Your task to perform on an android device: turn on showing notifications on the lock screen Image 0: 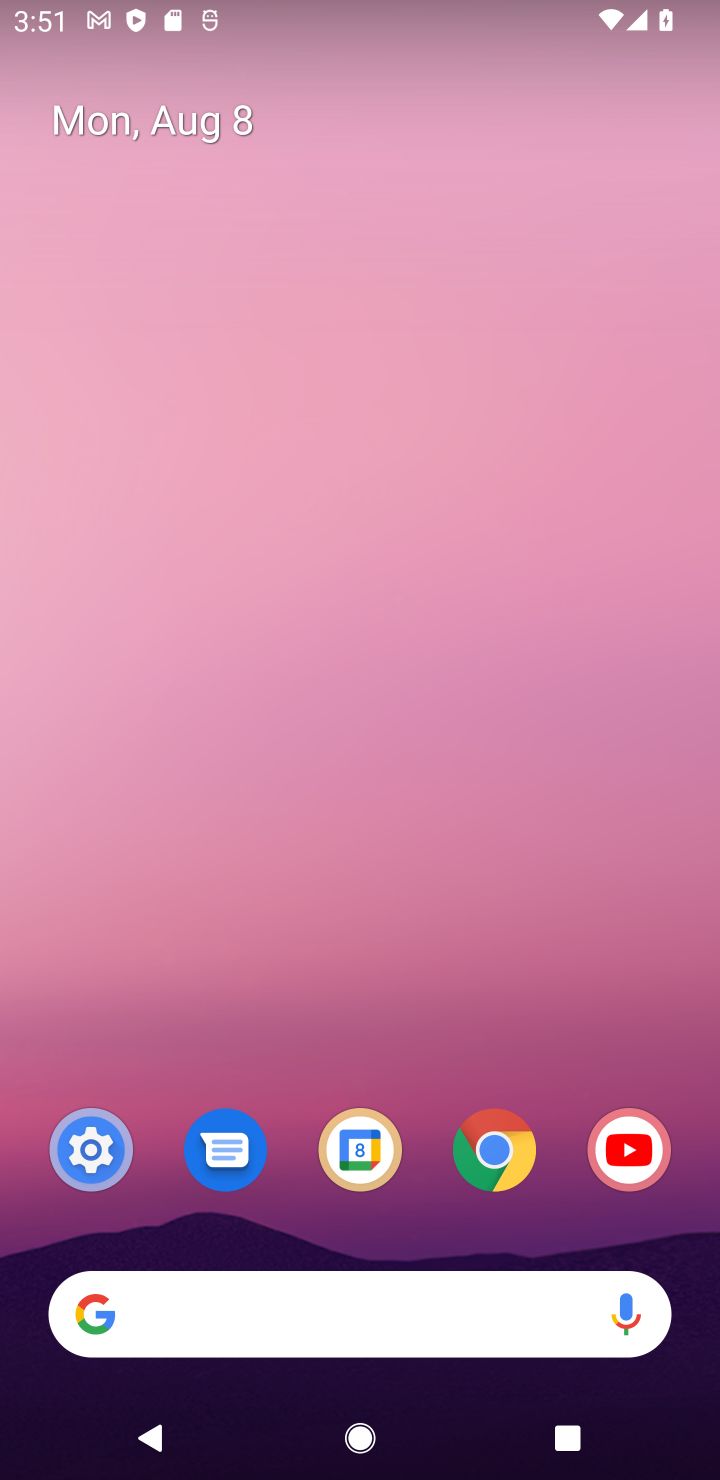
Step 0: click (90, 1189)
Your task to perform on an android device: turn on showing notifications on the lock screen Image 1: 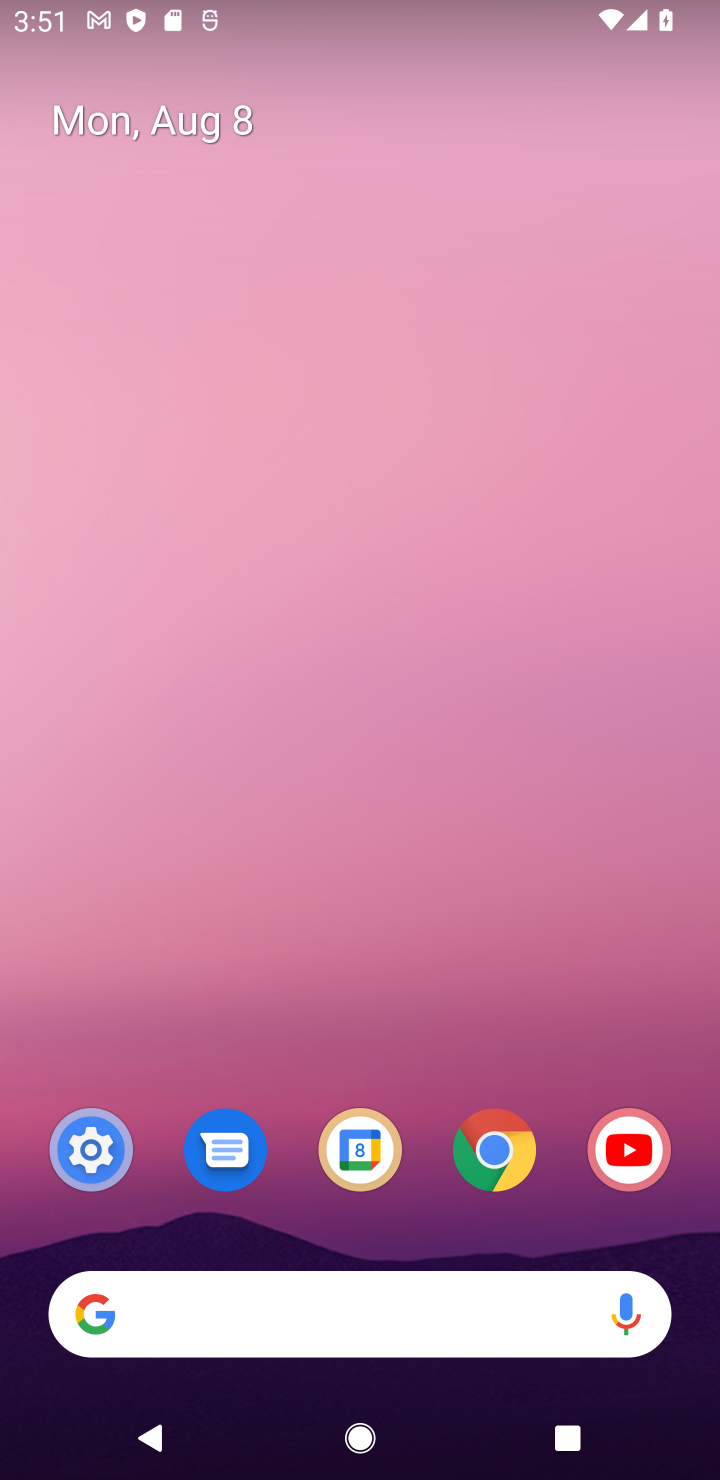
Step 1: click (63, 1165)
Your task to perform on an android device: turn on showing notifications on the lock screen Image 2: 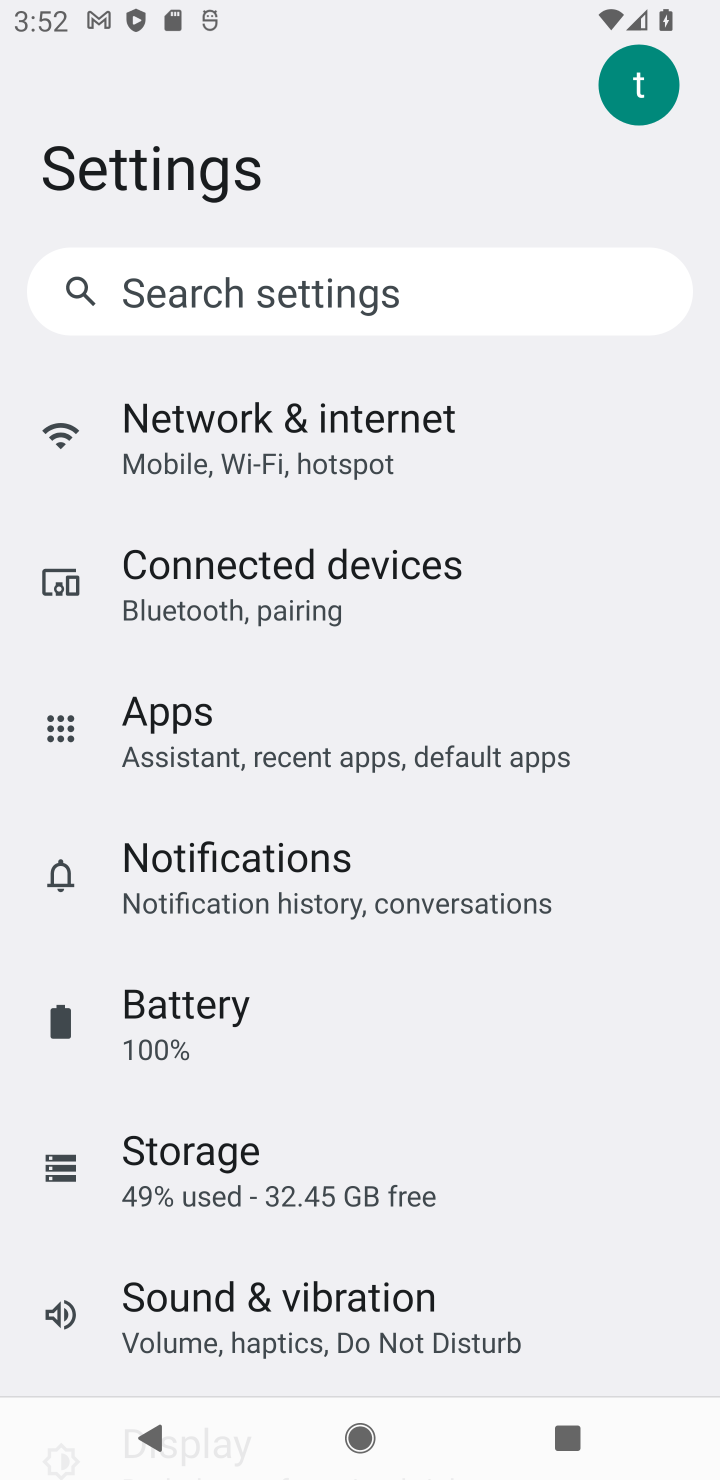
Step 2: task complete